Your task to perform on an android device: Go to calendar. Show me events next week Image 0: 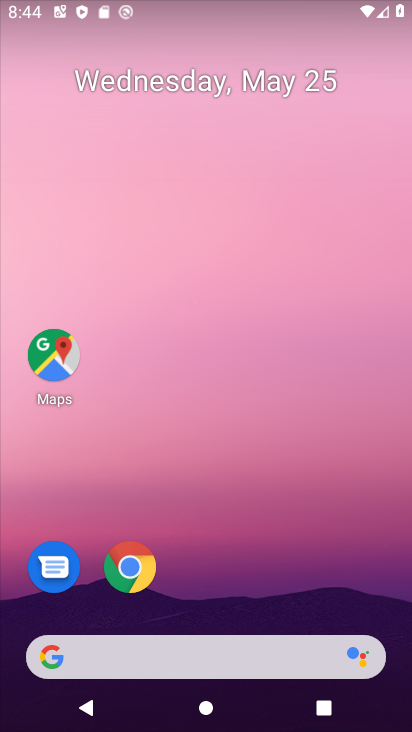
Step 0: drag from (252, 563) to (183, 0)
Your task to perform on an android device: Go to calendar. Show me events next week Image 1: 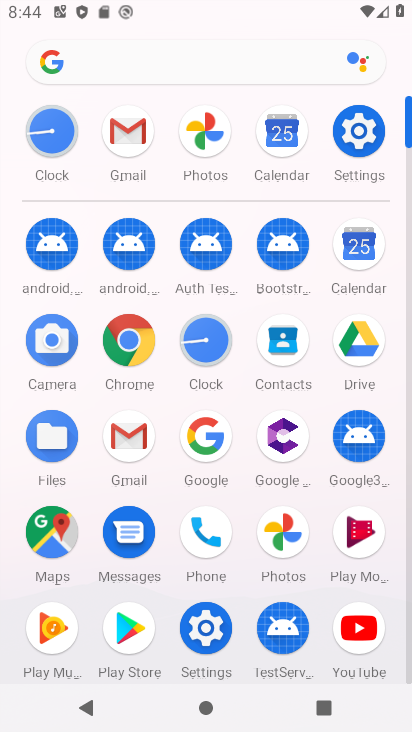
Step 1: click (289, 117)
Your task to perform on an android device: Go to calendar. Show me events next week Image 2: 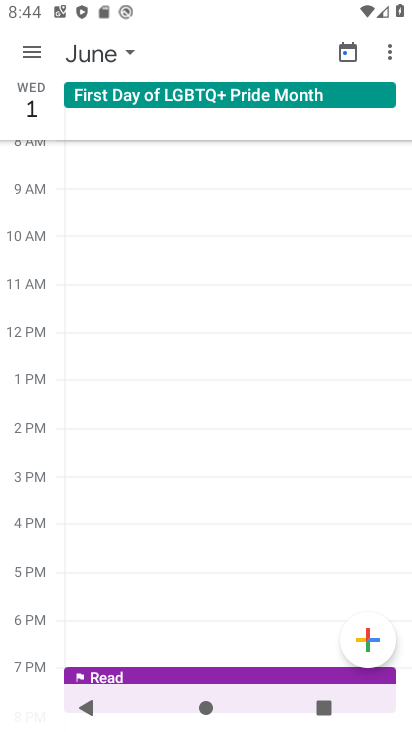
Step 2: task complete